Your task to perform on an android device: delete a single message in the gmail app Image 0: 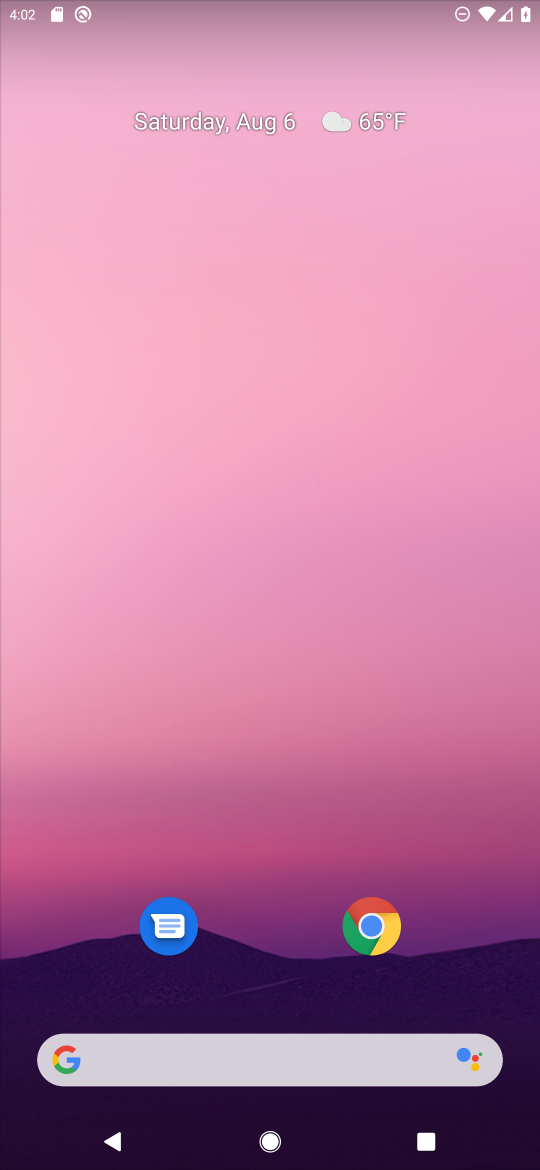
Step 0: drag from (259, 869) to (203, 286)
Your task to perform on an android device: delete a single message in the gmail app Image 1: 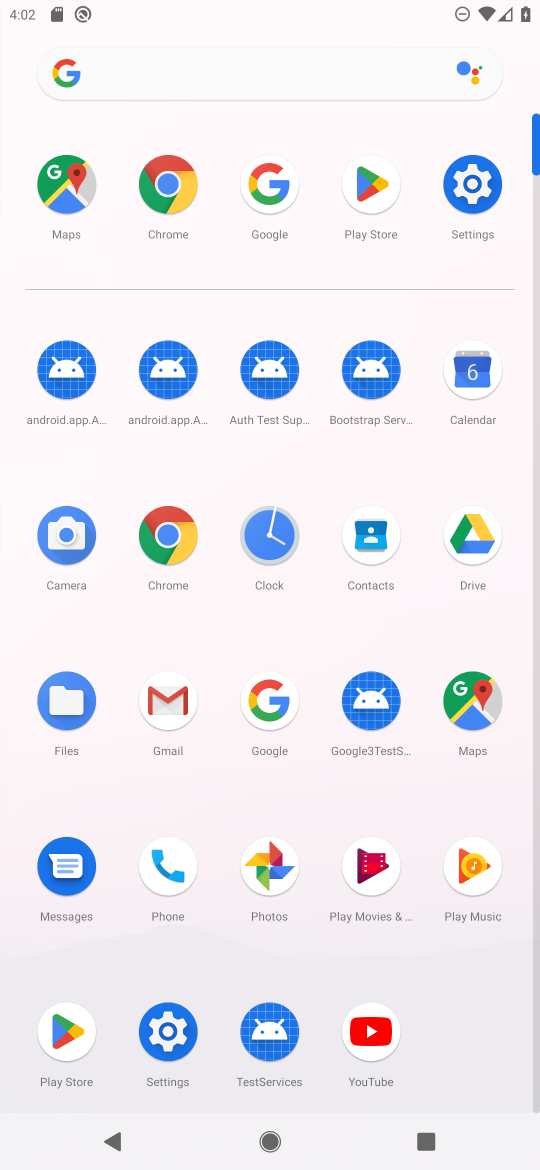
Step 1: click (186, 694)
Your task to perform on an android device: delete a single message in the gmail app Image 2: 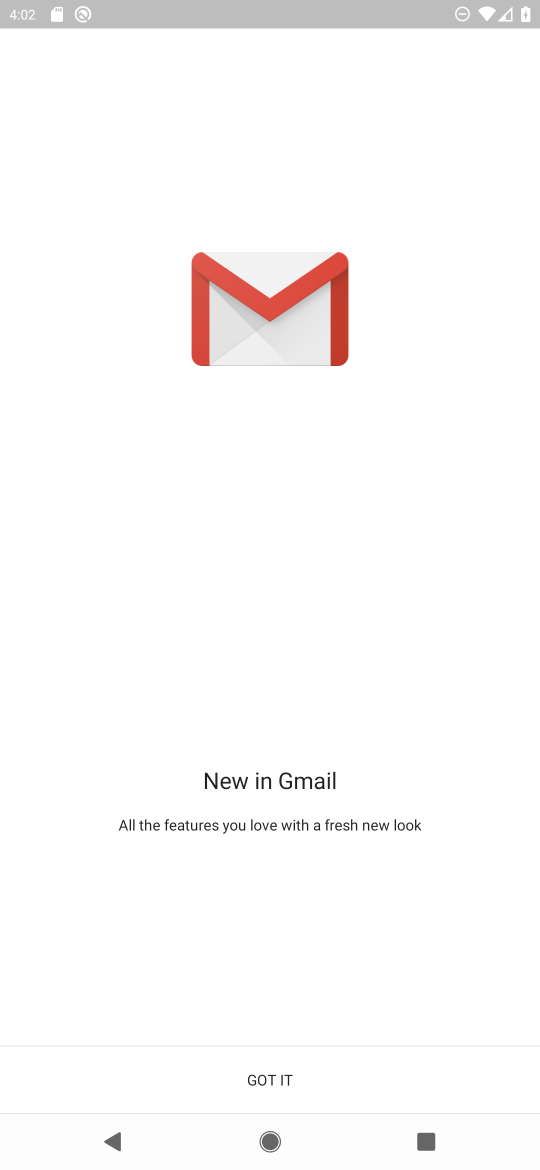
Step 2: click (343, 1087)
Your task to perform on an android device: delete a single message in the gmail app Image 3: 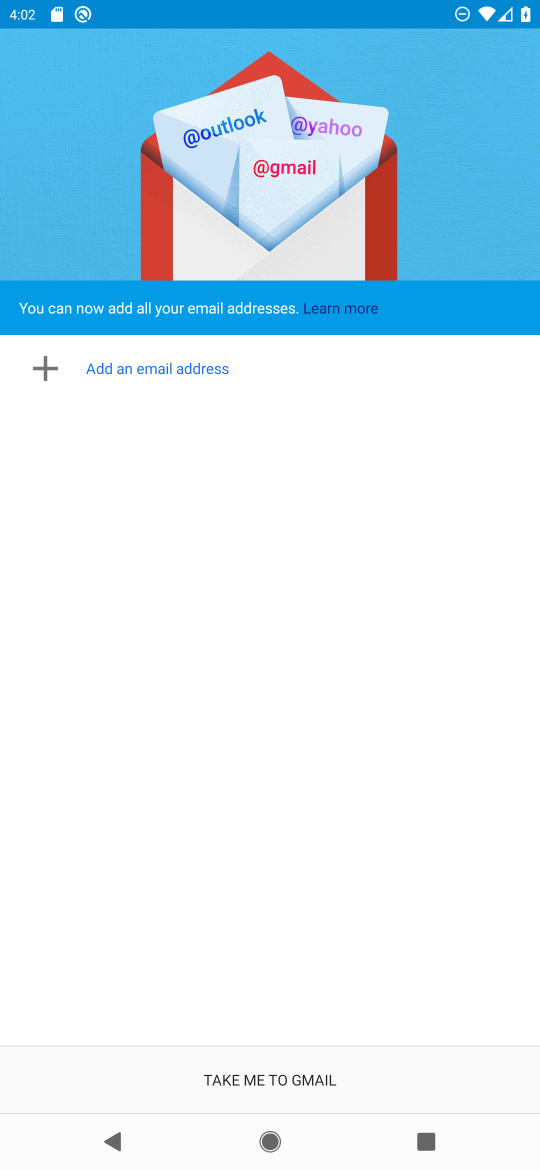
Step 3: click (343, 1087)
Your task to perform on an android device: delete a single message in the gmail app Image 4: 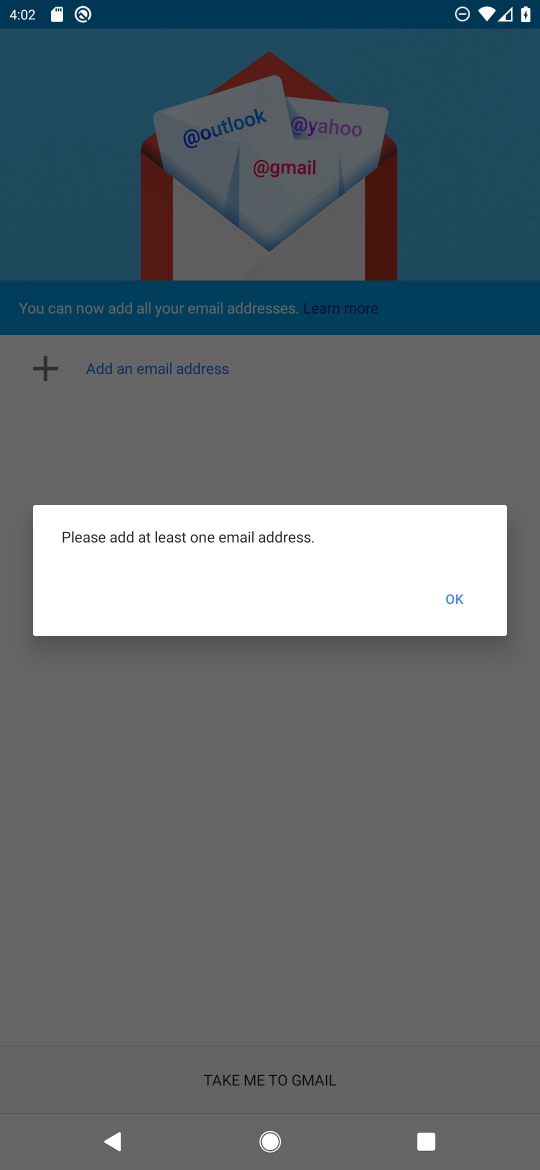
Step 4: task complete